Your task to perform on an android device: change the clock display to analog Image 0: 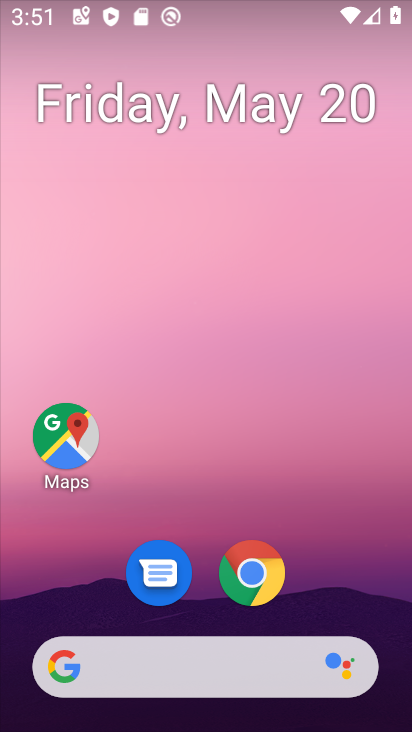
Step 0: drag from (387, 626) to (305, 108)
Your task to perform on an android device: change the clock display to analog Image 1: 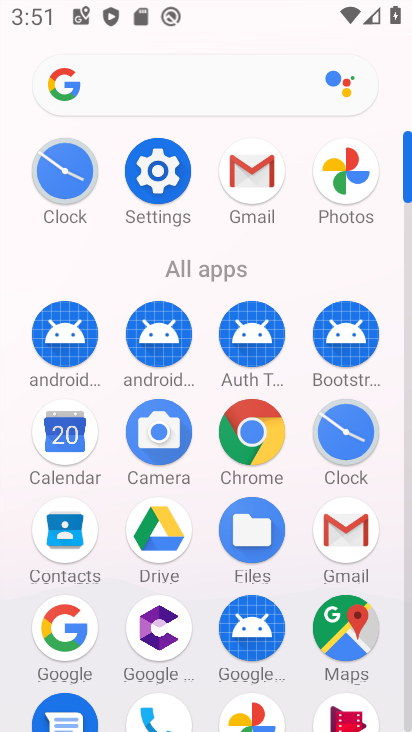
Step 1: click (345, 432)
Your task to perform on an android device: change the clock display to analog Image 2: 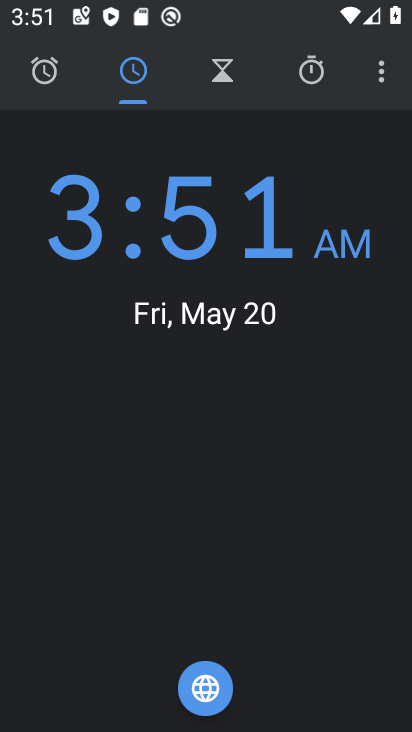
Step 2: click (379, 81)
Your task to perform on an android device: change the clock display to analog Image 3: 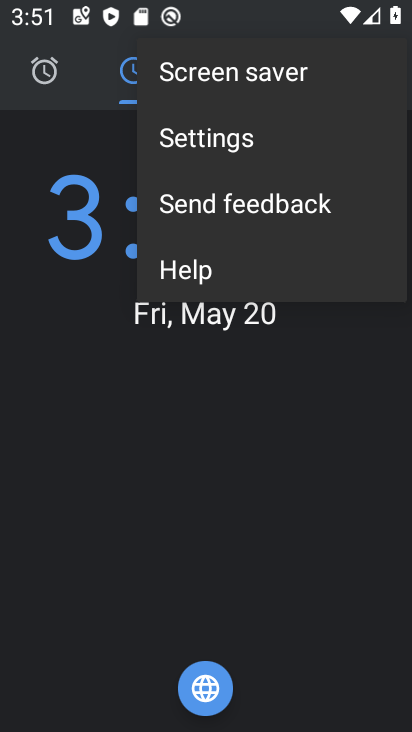
Step 3: click (214, 144)
Your task to perform on an android device: change the clock display to analog Image 4: 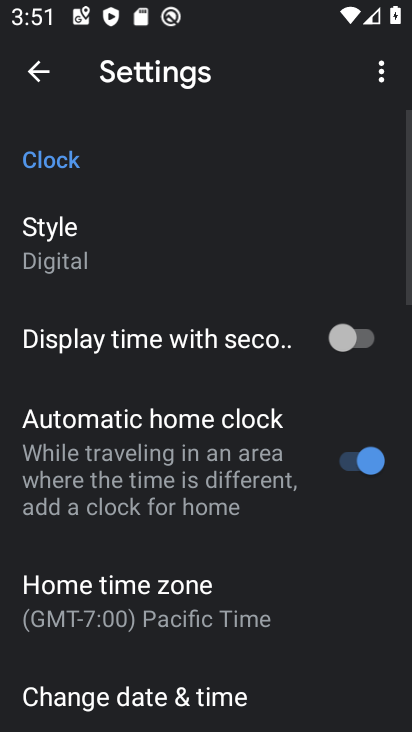
Step 4: click (16, 247)
Your task to perform on an android device: change the clock display to analog Image 5: 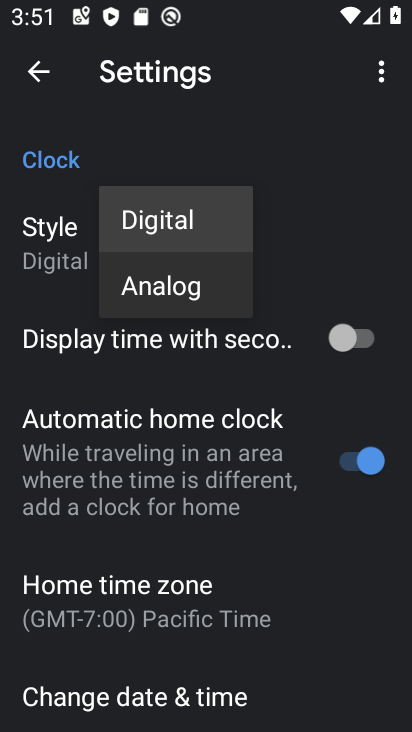
Step 5: click (161, 286)
Your task to perform on an android device: change the clock display to analog Image 6: 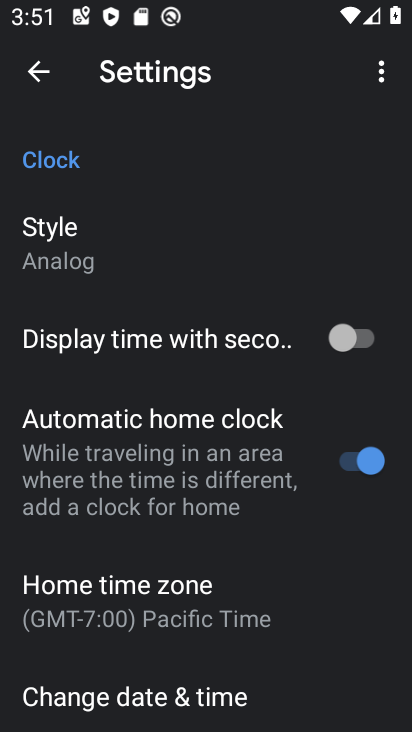
Step 6: task complete